Your task to perform on an android device: move a message to another label in the gmail app Image 0: 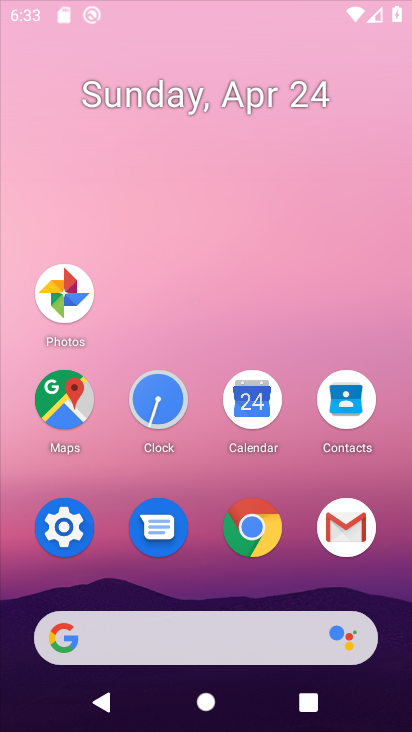
Step 0: click (258, 526)
Your task to perform on an android device: move a message to another label in the gmail app Image 1: 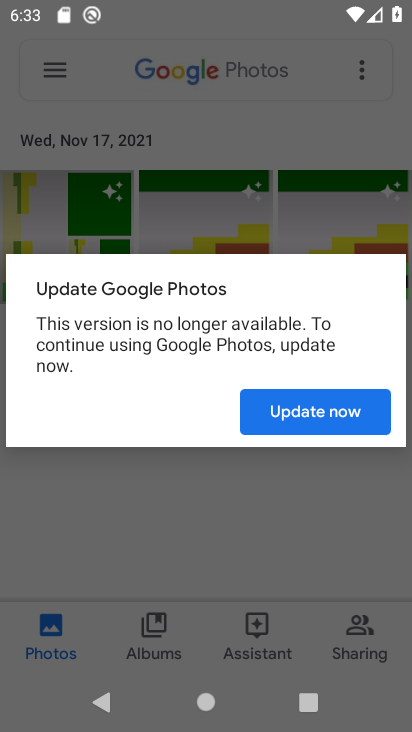
Step 1: press home button
Your task to perform on an android device: move a message to another label in the gmail app Image 2: 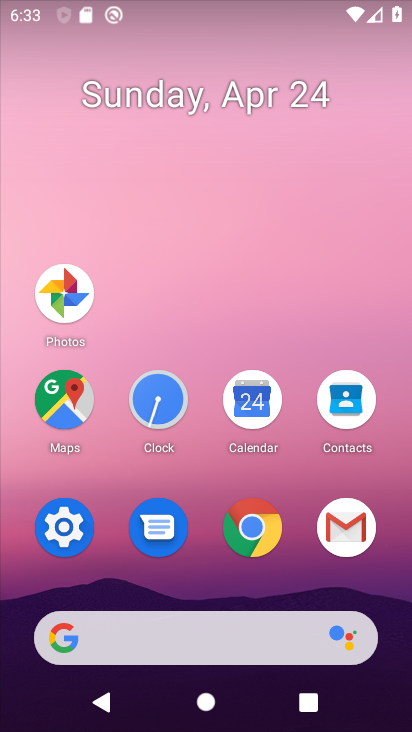
Step 2: click (340, 526)
Your task to perform on an android device: move a message to another label in the gmail app Image 3: 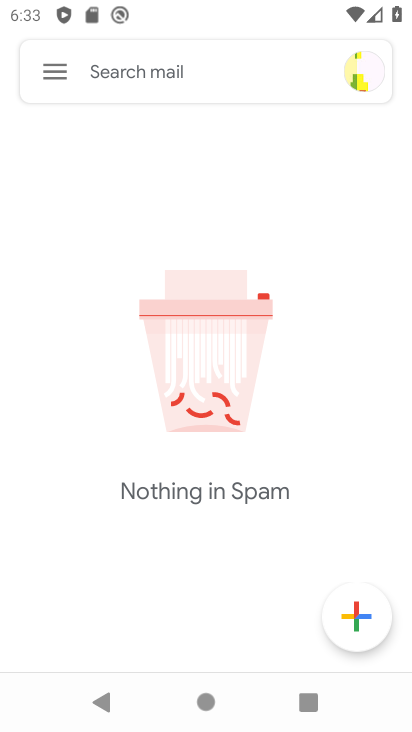
Step 3: click (51, 72)
Your task to perform on an android device: move a message to another label in the gmail app Image 4: 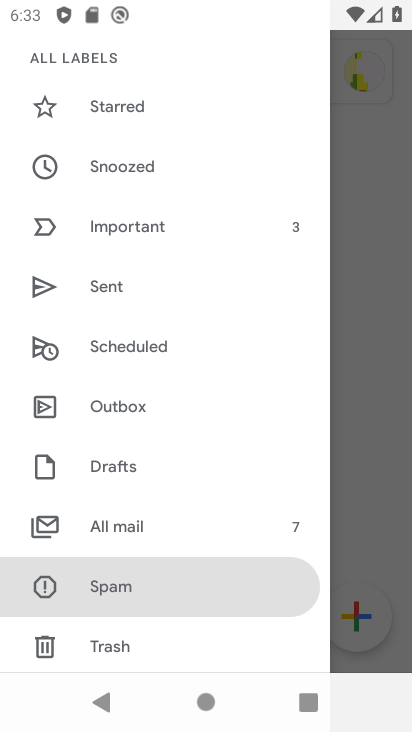
Step 4: click (130, 525)
Your task to perform on an android device: move a message to another label in the gmail app Image 5: 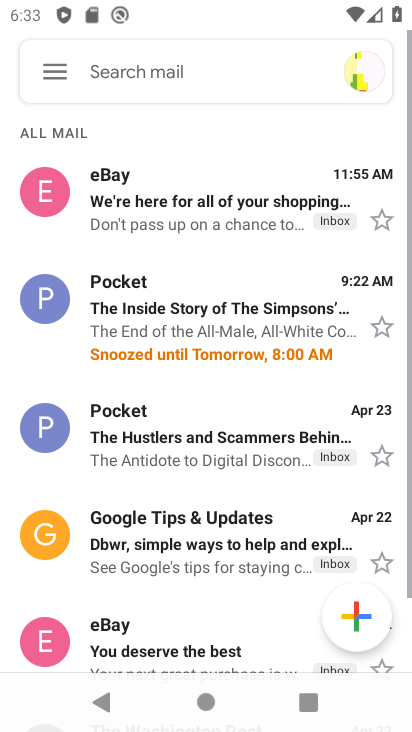
Step 5: click (264, 219)
Your task to perform on an android device: move a message to another label in the gmail app Image 6: 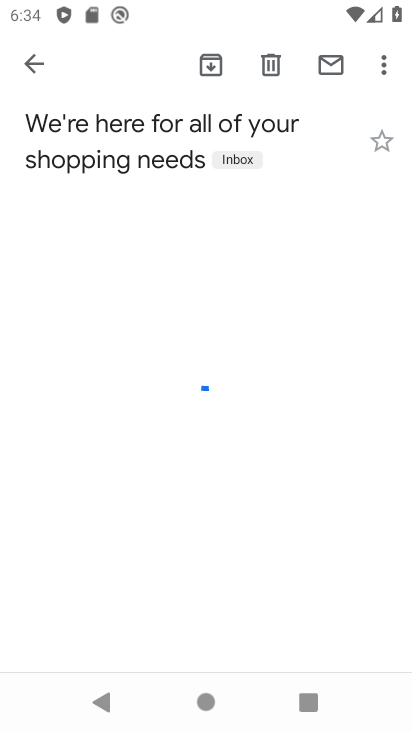
Step 6: click (381, 63)
Your task to perform on an android device: move a message to another label in the gmail app Image 7: 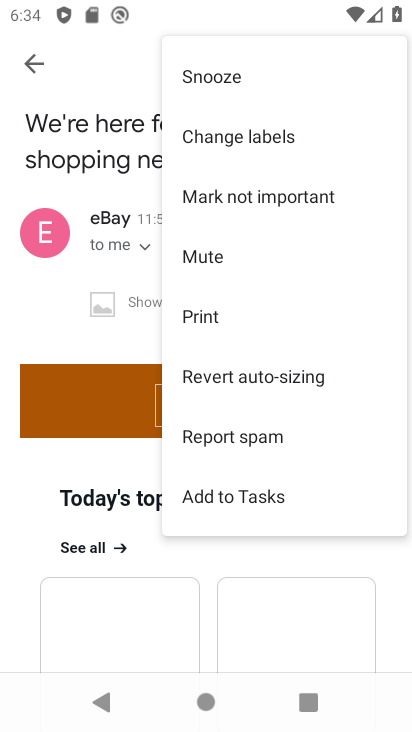
Step 7: click (252, 129)
Your task to perform on an android device: move a message to another label in the gmail app Image 8: 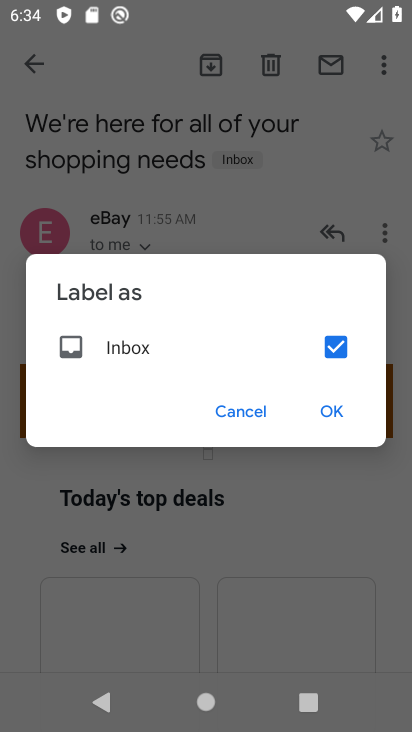
Step 8: click (328, 409)
Your task to perform on an android device: move a message to another label in the gmail app Image 9: 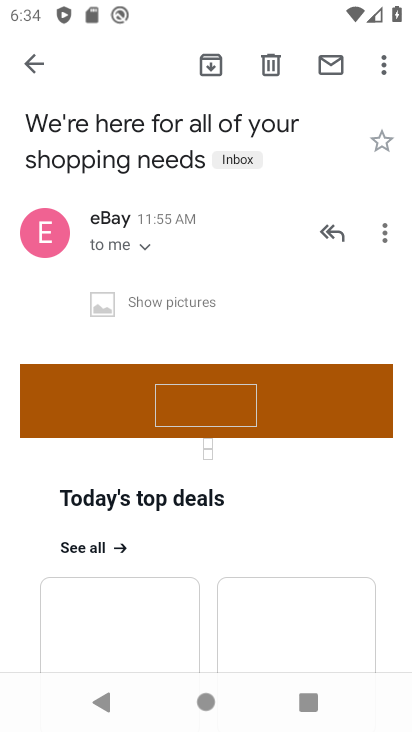
Step 9: task complete